Your task to perform on an android device: When is my next meeting? Image 0: 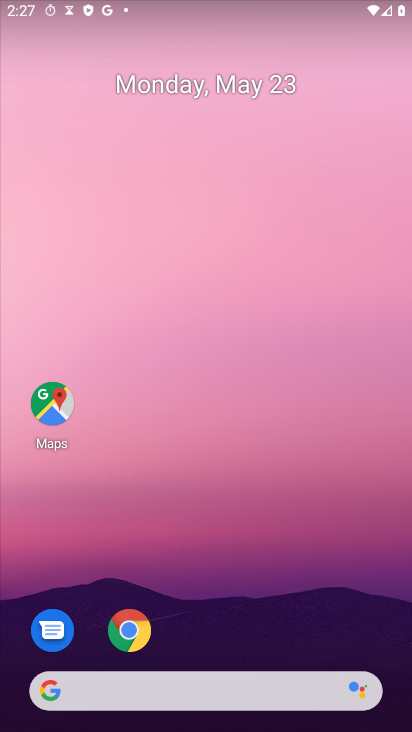
Step 0: drag from (317, 480) to (310, 109)
Your task to perform on an android device: When is my next meeting? Image 1: 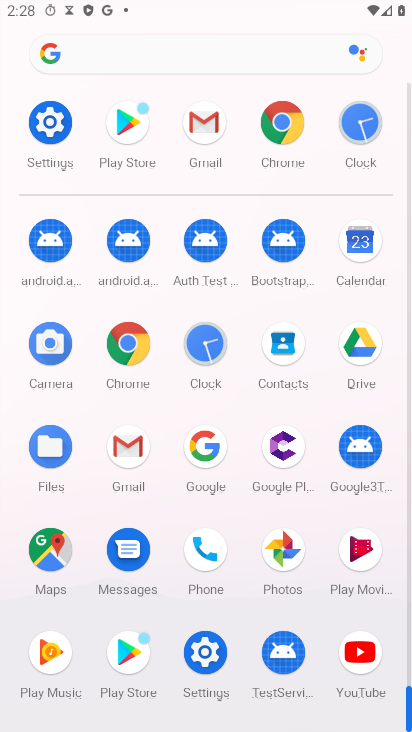
Step 1: click (351, 261)
Your task to perform on an android device: When is my next meeting? Image 2: 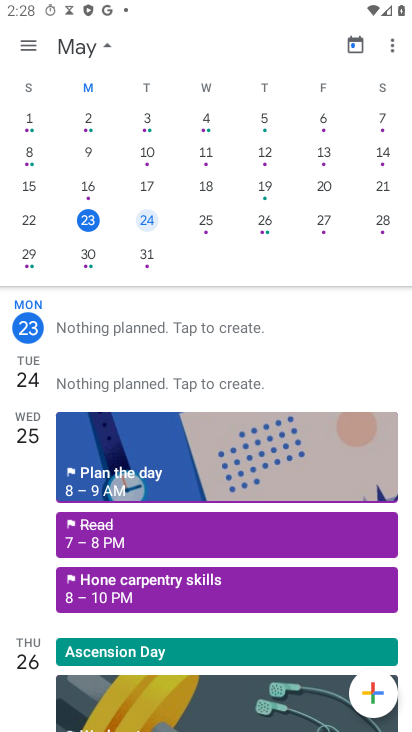
Step 2: task complete